Your task to perform on an android device: refresh tabs in the chrome app Image 0: 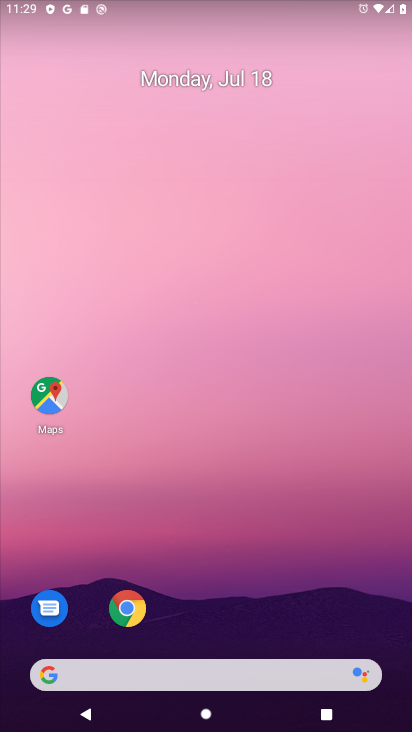
Step 0: click (124, 599)
Your task to perform on an android device: refresh tabs in the chrome app Image 1: 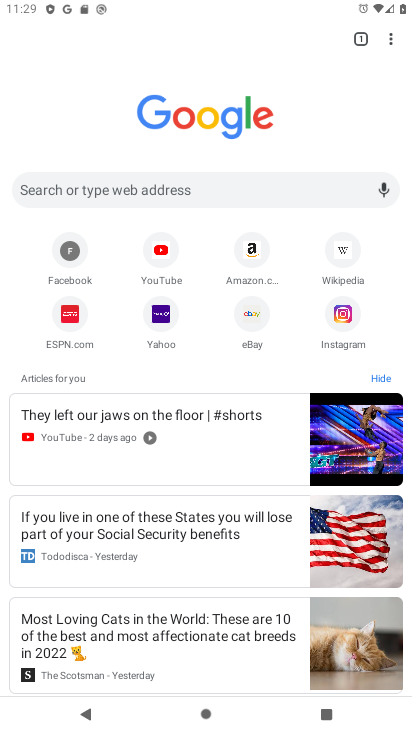
Step 1: click (396, 40)
Your task to perform on an android device: refresh tabs in the chrome app Image 2: 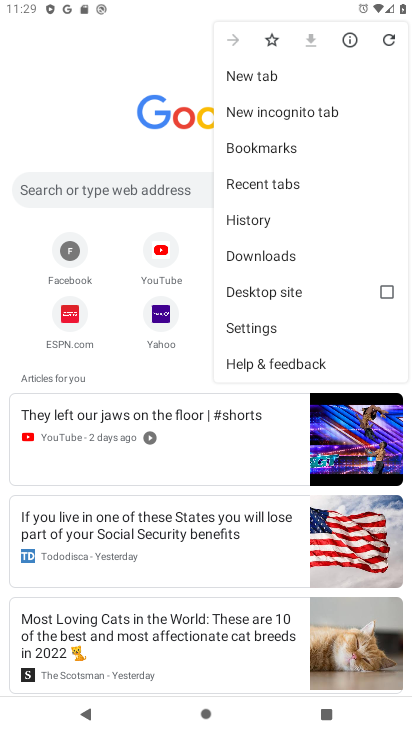
Step 2: click (382, 44)
Your task to perform on an android device: refresh tabs in the chrome app Image 3: 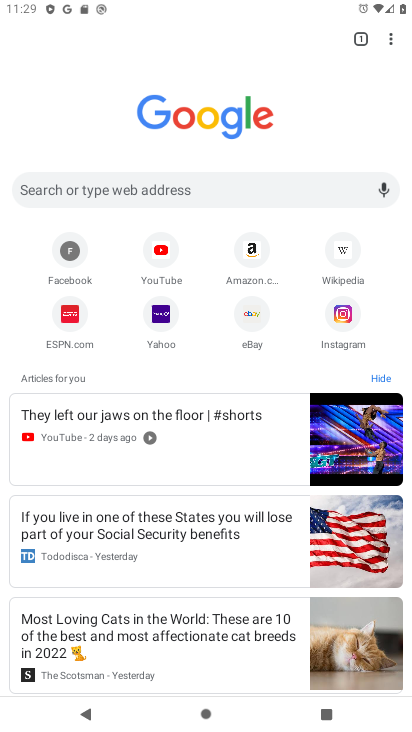
Step 3: task complete